Your task to perform on an android device: Go to CNN.com Image 0: 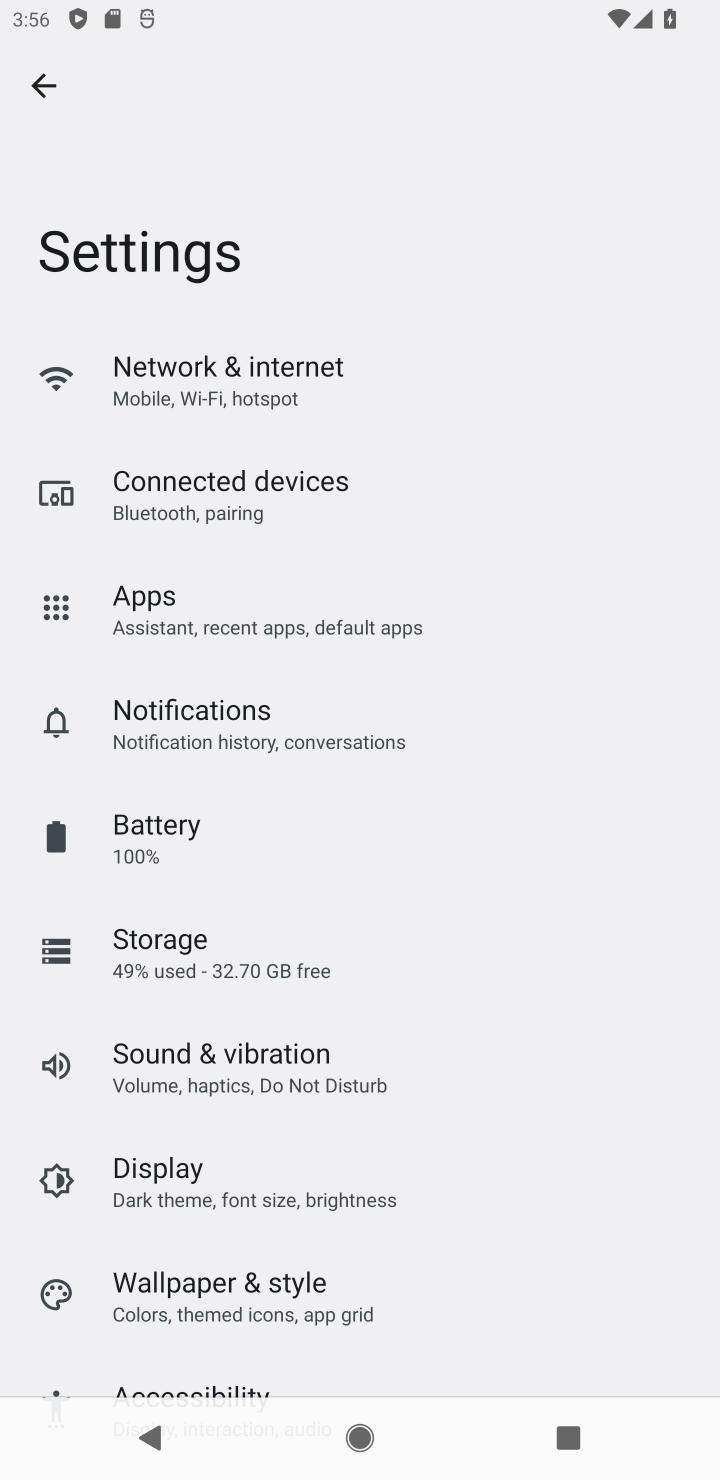
Step 0: press home button
Your task to perform on an android device: Go to CNN.com Image 1: 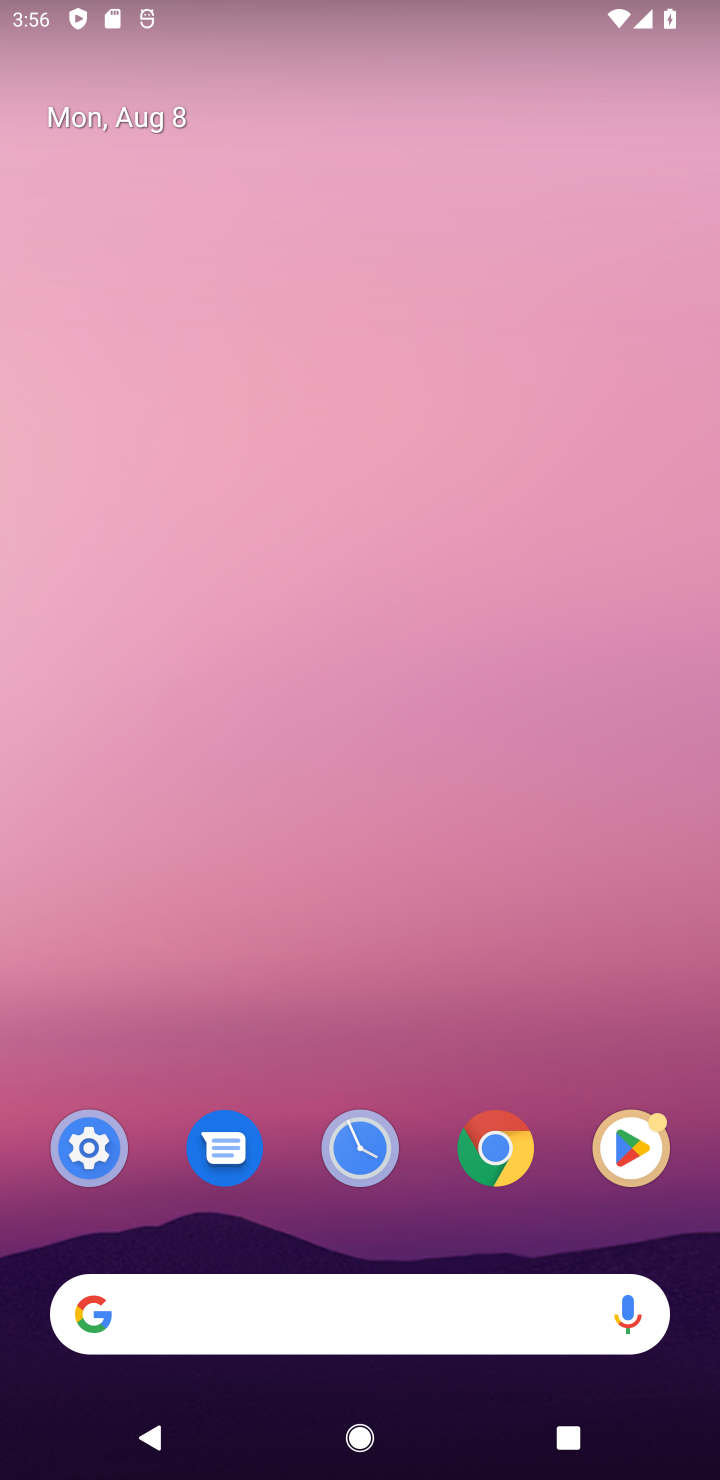
Step 1: drag from (381, 1074) to (149, 61)
Your task to perform on an android device: Go to CNN.com Image 2: 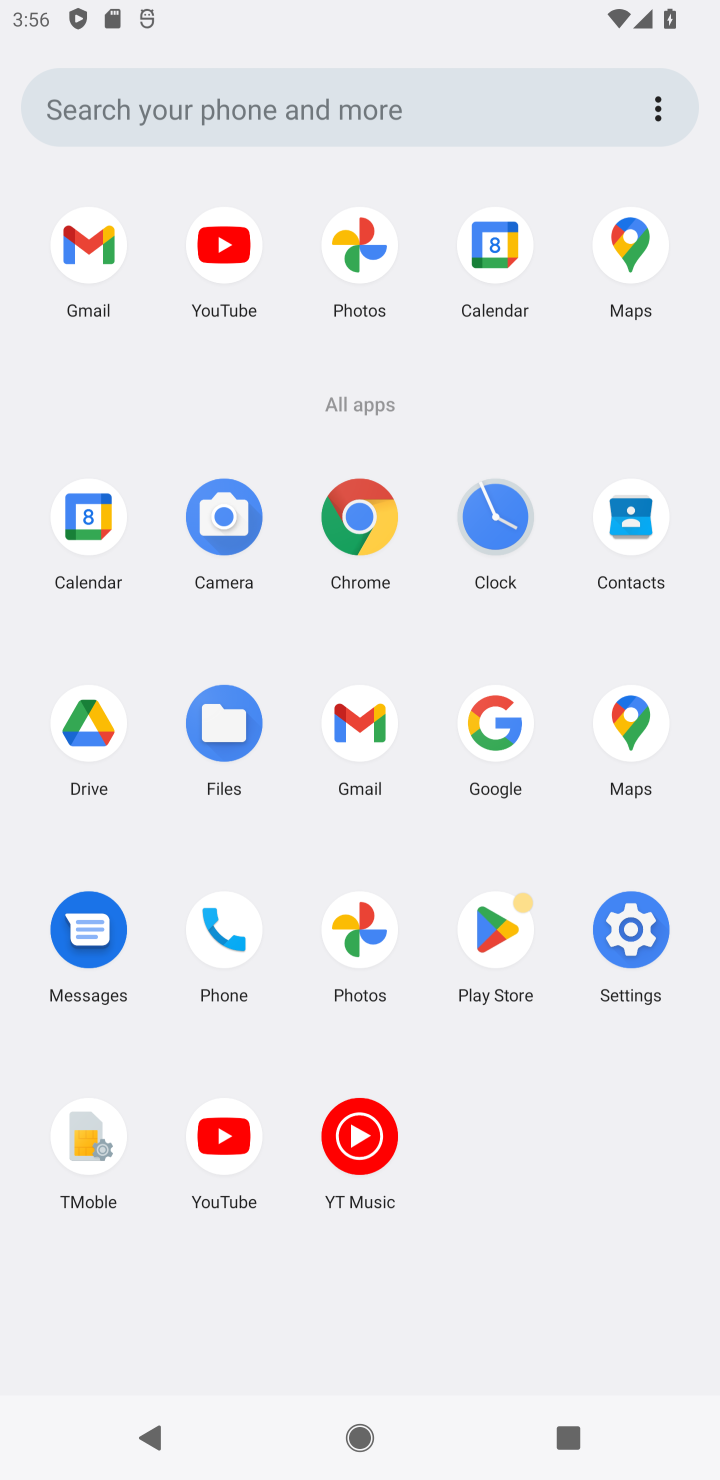
Step 2: click (342, 556)
Your task to perform on an android device: Go to CNN.com Image 3: 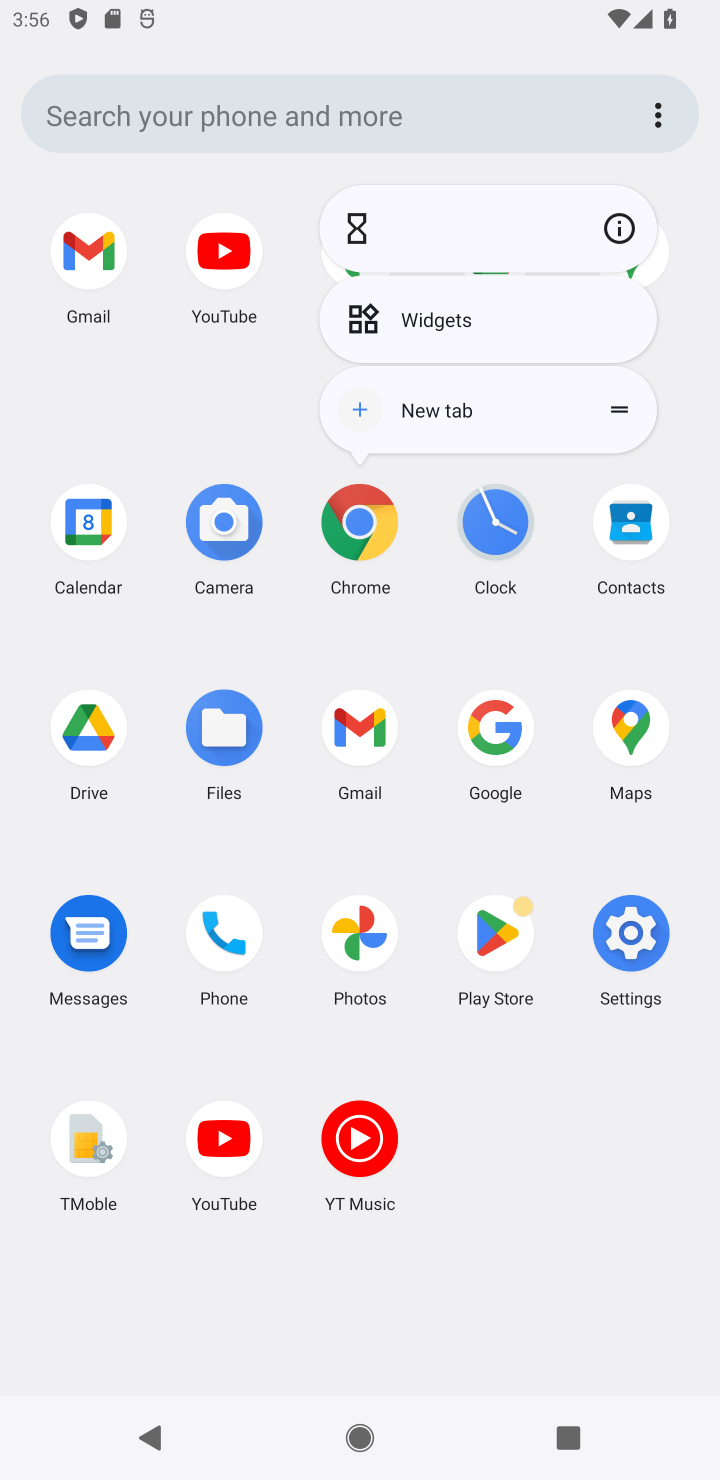
Step 3: click (344, 551)
Your task to perform on an android device: Go to CNN.com Image 4: 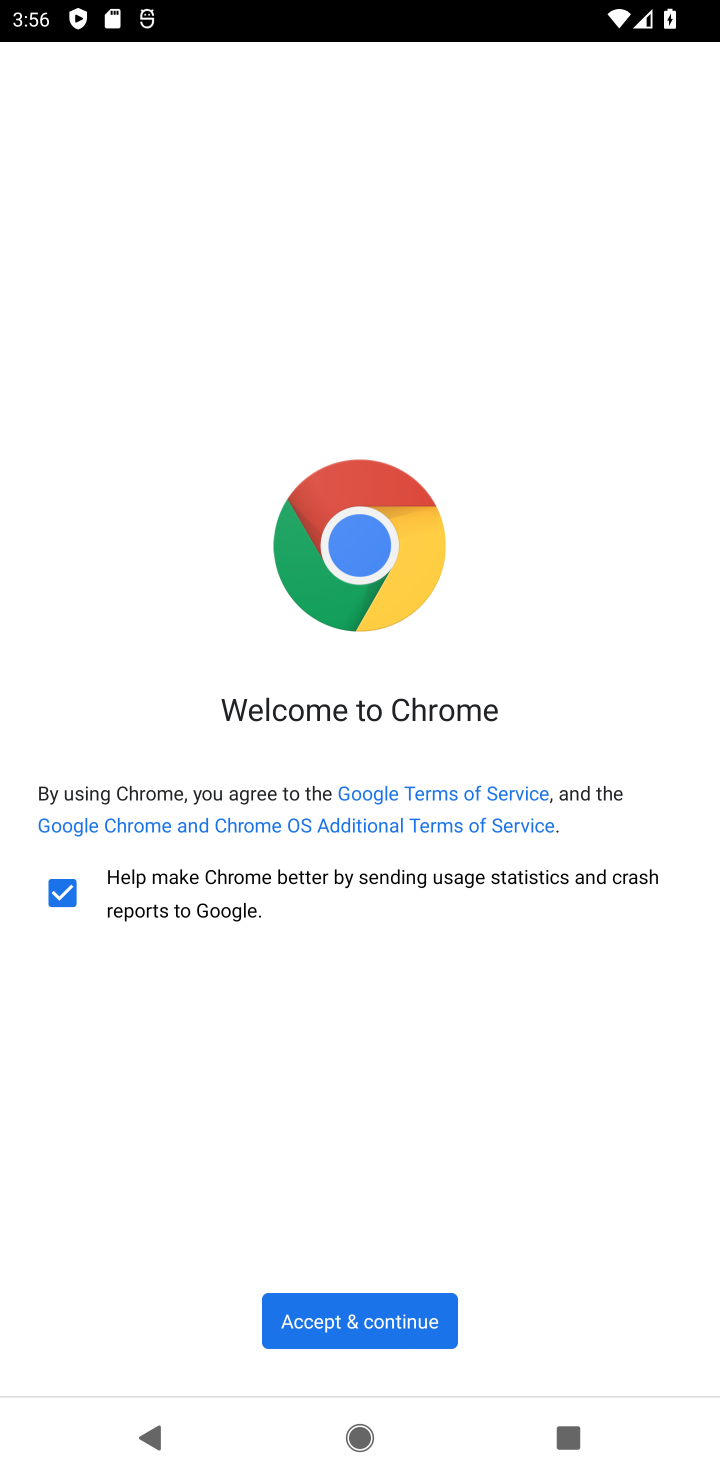
Step 4: click (294, 1348)
Your task to perform on an android device: Go to CNN.com Image 5: 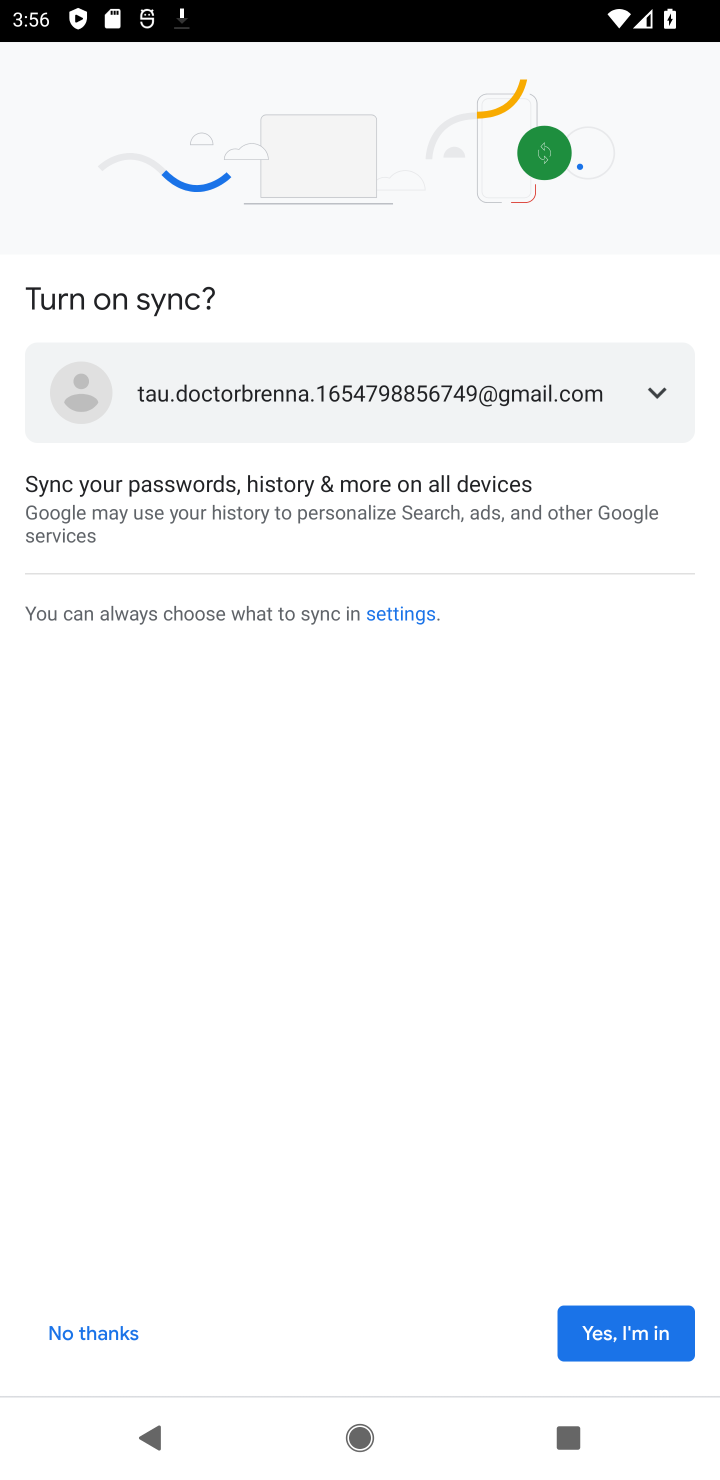
Step 5: click (67, 1337)
Your task to perform on an android device: Go to CNN.com Image 6: 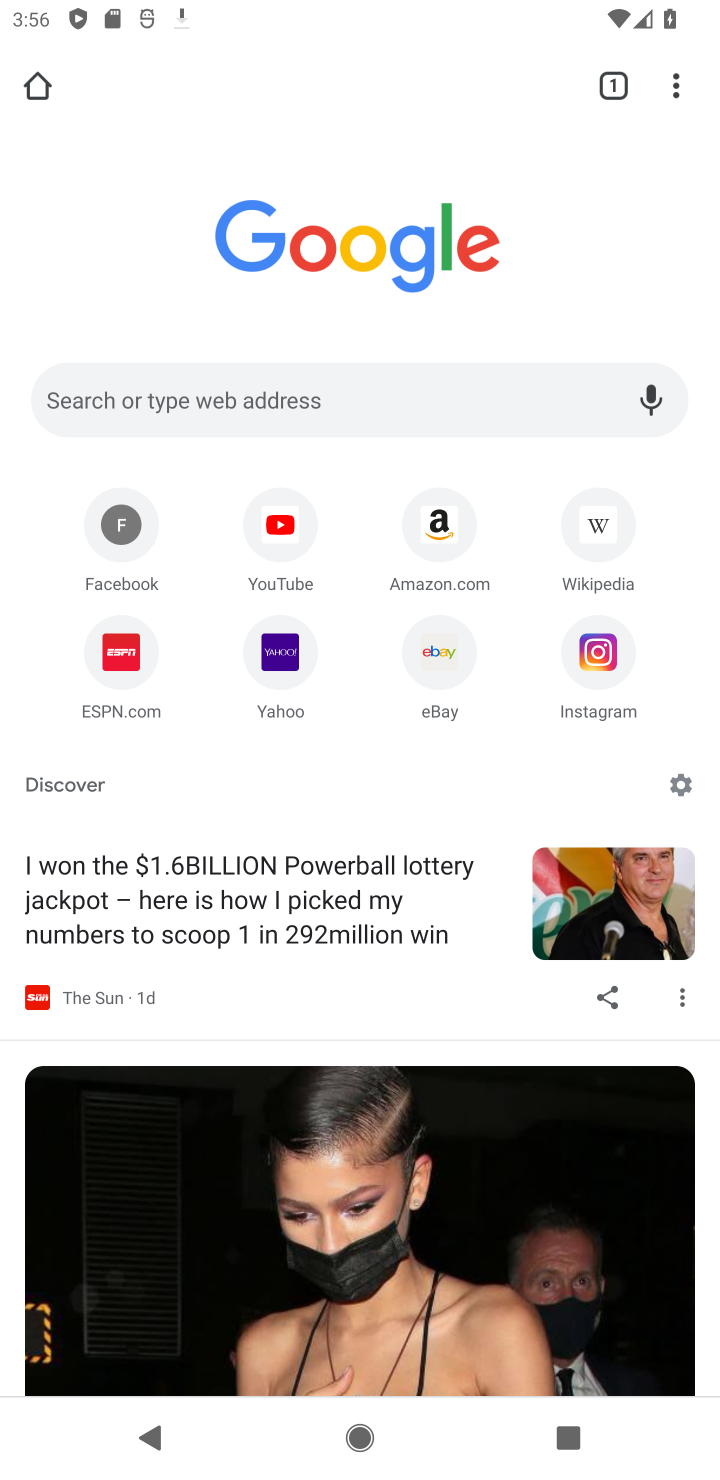
Step 6: click (355, 416)
Your task to perform on an android device: Go to CNN.com Image 7: 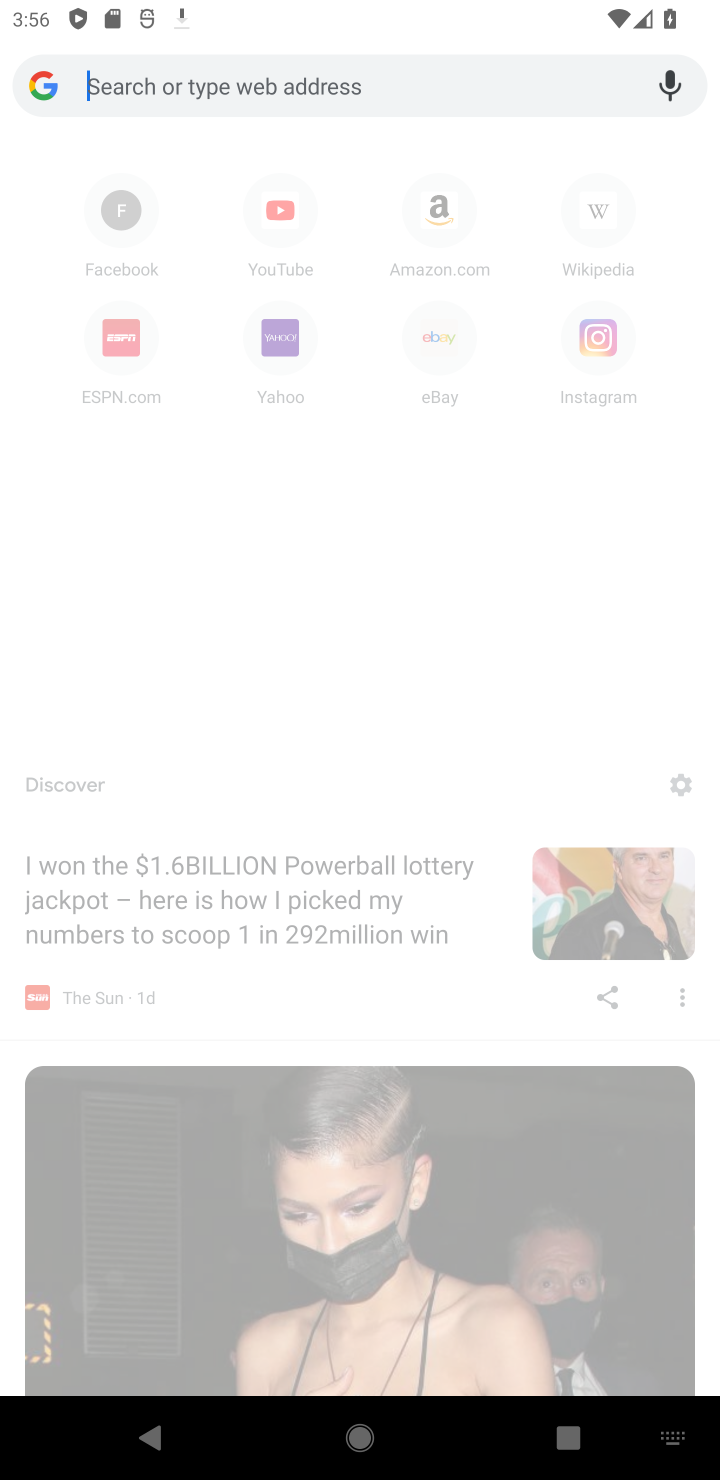
Step 7: type "cnn"
Your task to perform on an android device: Go to CNN.com Image 8: 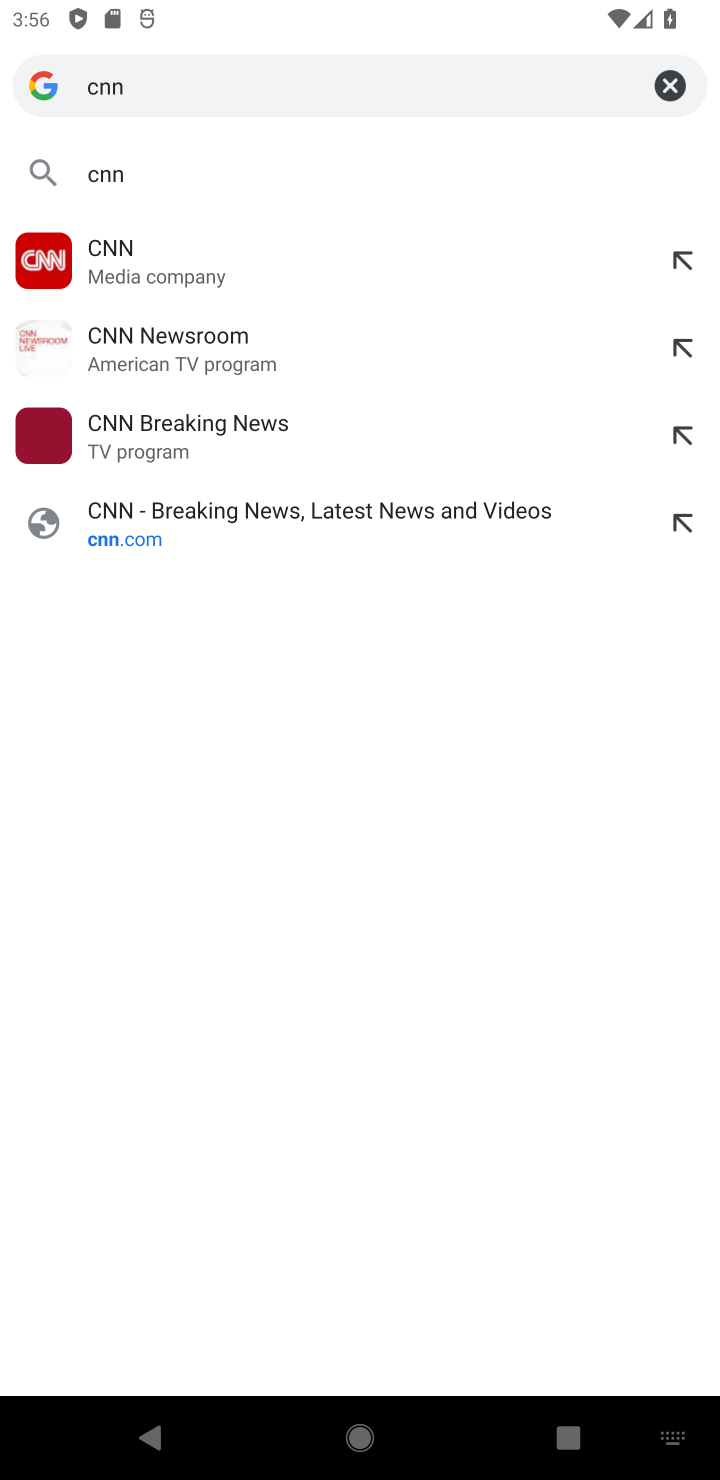
Step 8: click (143, 258)
Your task to perform on an android device: Go to CNN.com Image 9: 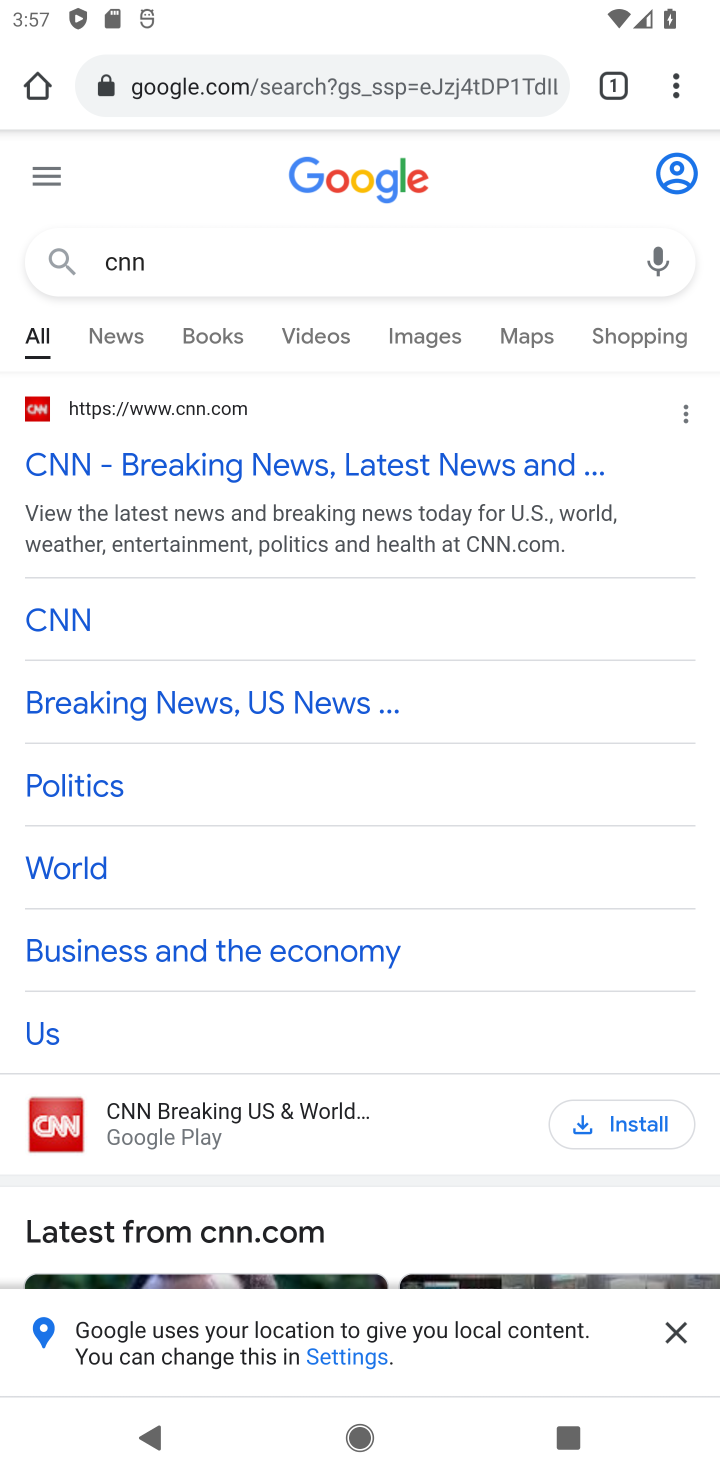
Step 9: click (151, 483)
Your task to perform on an android device: Go to CNN.com Image 10: 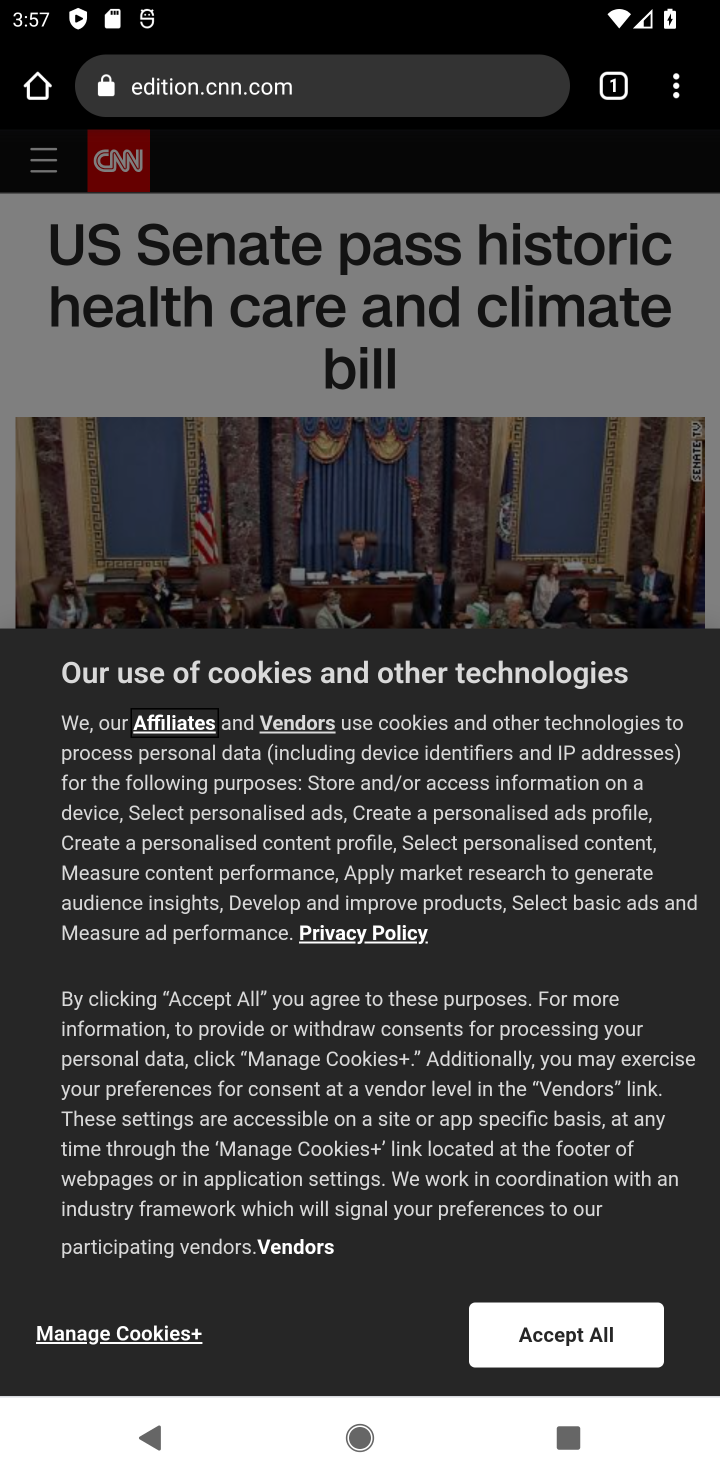
Step 10: task complete